Your task to perform on an android device: Open Google Maps and go to "Timeline" Image 0: 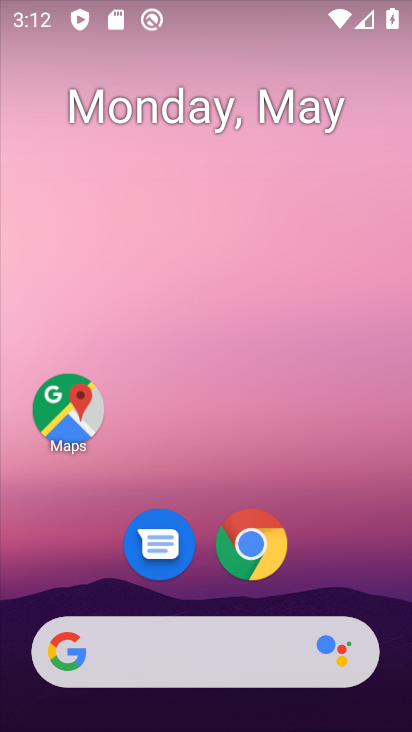
Step 0: drag from (340, 565) to (312, 1)
Your task to perform on an android device: Open Google Maps and go to "Timeline" Image 1: 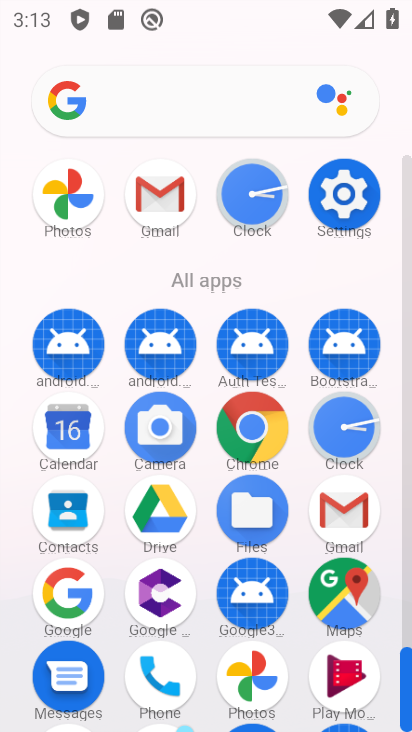
Step 1: click (348, 570)
Your task to perform on an android device: Open Google Maps and go to "Timeline" Image 2: 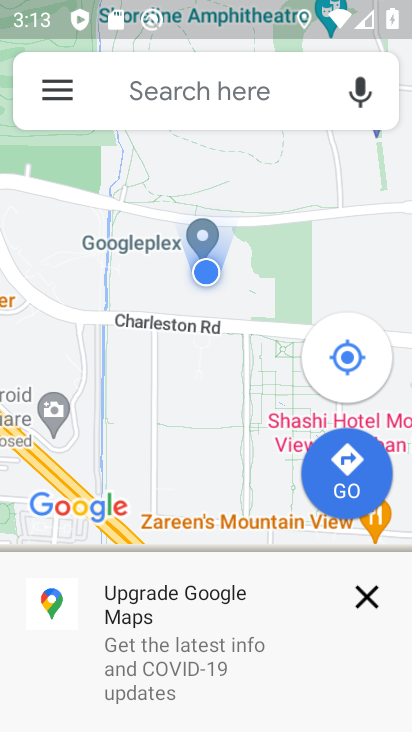
Step 2: click (71, 79)
Your task to perform on an android device: Open Google Maps and go to "Timeline" Image 3: 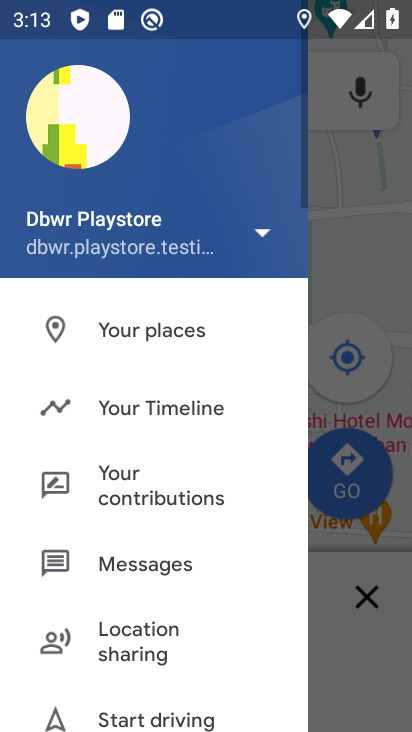
Step 3: click (161, 401)
Your task to perform on an android device: Open Google Maps and go to "Timeline" Image 4: 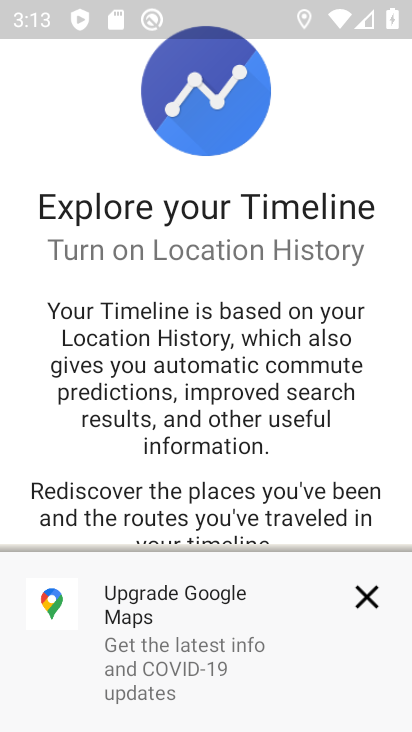
Step 4: click (365, 588)
Your task to perform on an android device: Open Google Maps and go to "Timeline" Image 5: 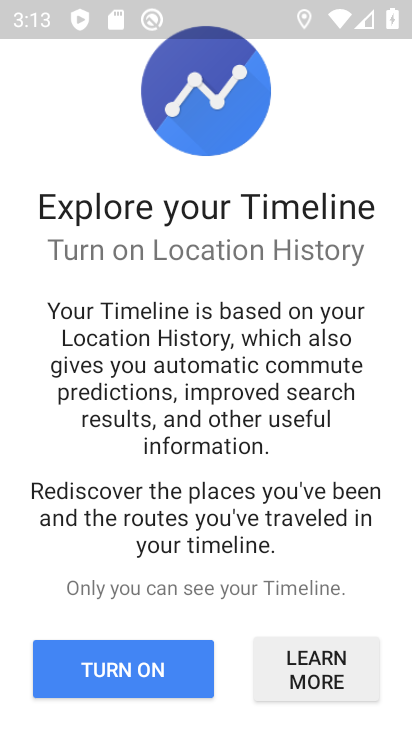
Step 5: drag from (407, 493) to (322, 190)
Your task to perform on an android device: Open Google Maps and go to "Timeline" Image 6: 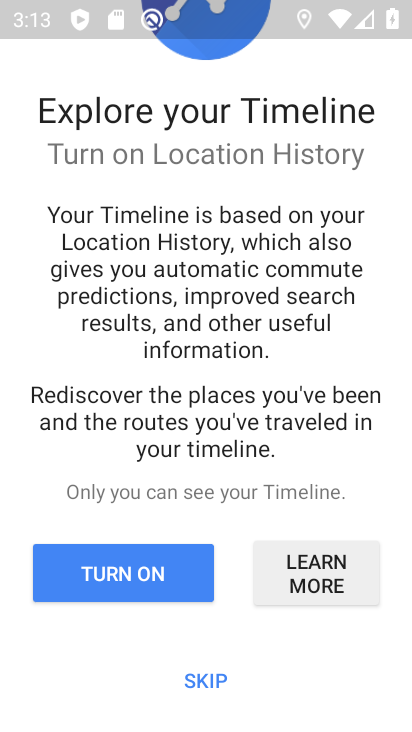
Step 6: click (211, 680)
Your task to perform on an android device: Open Google Maps and go to "Timeline" Image 7: 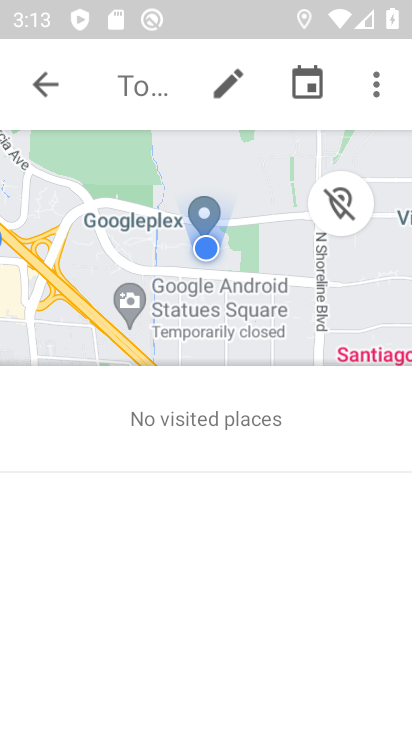
Step 7: task complete